Your task to perform on an android device: turn pop-ups on in chrome Image 0: 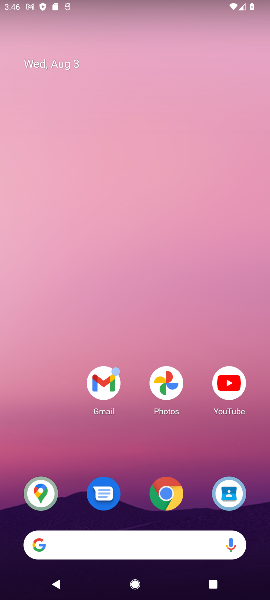
Step 0: drag from (52, 445) to (72, 81)
Your task to perform on an android device: turn pop-ups on in chrome Image 1: 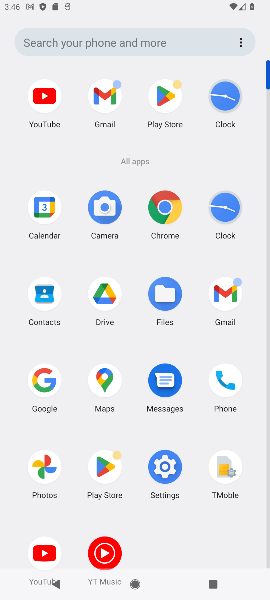
Step 1: click (171, 218)
Your task to perform on an android device: turn pop-ups on in chrome Image 2: 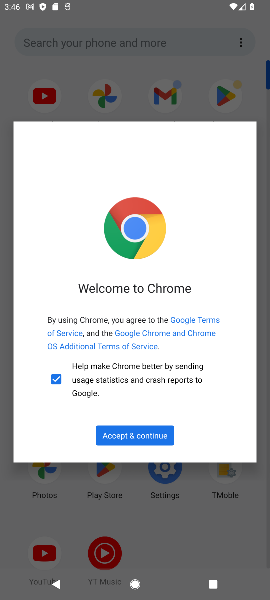
Step 2: click (121, 434)
Your task to perform on an android device: turn pop-ups on in chrome Image 3: 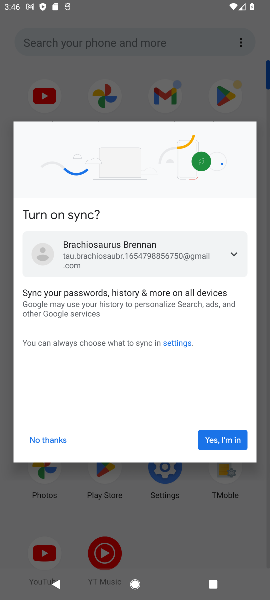
Step 3: click (225, 439)
Your task to perform on an android device: turn pop-ups on in chrome Image 4: 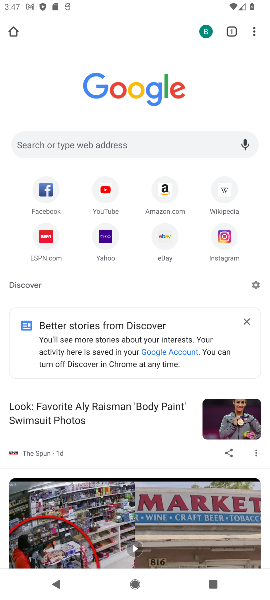
Step 4: click (254, 33)
Your task to perform on an android device: turn pop-ups on in chrome Image 5: 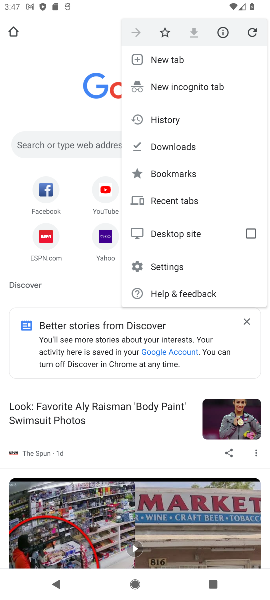
Step 5: click (181, 271)
Your task to perform on an android device: turn pop-ups on in chrome Image 6: 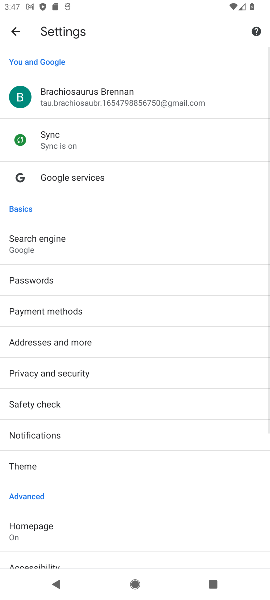
Step 6: drag from (198, 412) to (195, 306)
Your task to perform on an android device: turn pop-ups on in chrome Image 7: 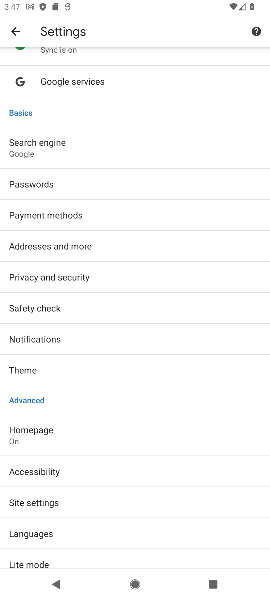
Step 7: drag from (169, 462) to (170, 355)
Your task to perform on an android device: turn pop-ups on in chrome Image 8: 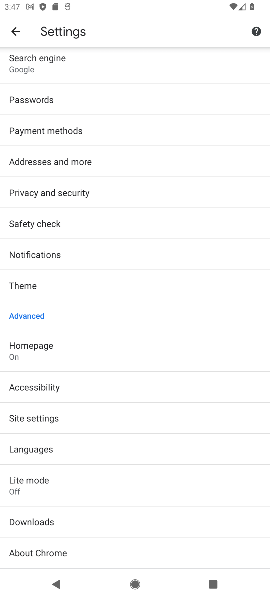
Step 8: drag from (161, 480) to (163, 357)
Your task to perform on an android device: turn pop-ups on in chrome Image 9: 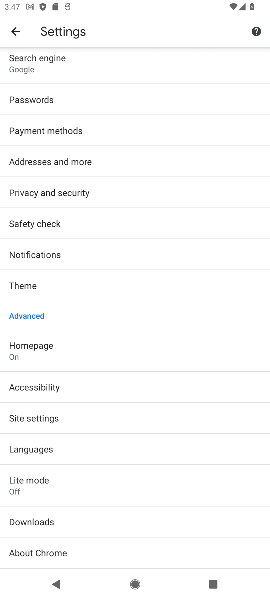
Step 9: click (160, 420)
Your task to perform on an android device: turn pop-ups on in chrome Image 10: 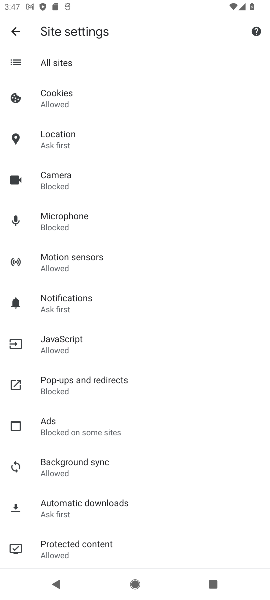
Step 10: drag from (201, 452) to (208, 375)
Your task to perform on an android device: turn pop-ups on in chrome Image 11: 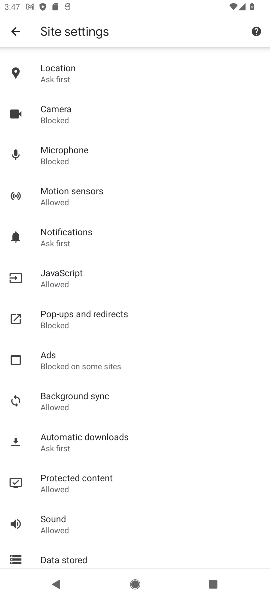
Step 11: drag from (200, 502) to (202, 417)
Your task to perform on an android device: turn pop-ups on in chrome Image 12: 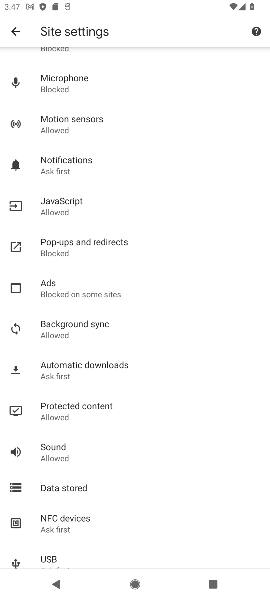
Step 12: drag from (202, 495) to (213, 382)
Your task to perform on an android device: turn pop-ups on in chrome Image 13: 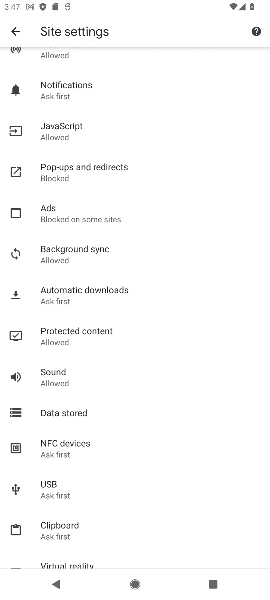
Step 13: drag from (211, 426) to (209, 315)
Your task to perform on an android device: turn pop-ups on in chrome Image 14: 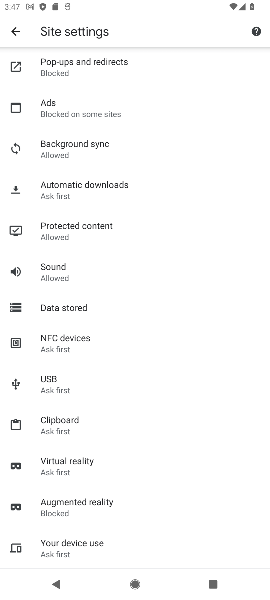
Step 14: drag from (206, 466) to (198, 348)
Your task to perform on an android device: turn pop-ups on in chrome Image 15: 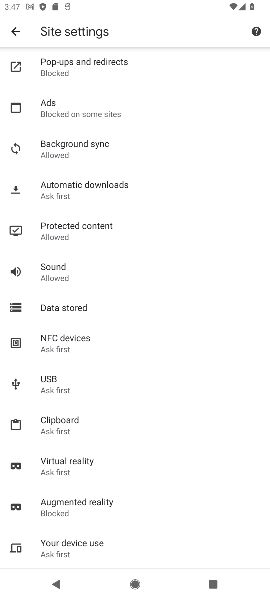
Step 15: drag from (193, 203) to (195, 297)
Your task to perform on an android device: turn pop-ups on in chrome Image 16: 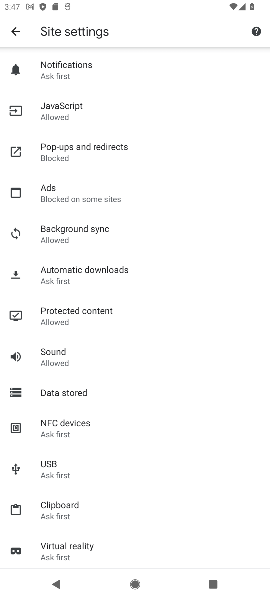
Step 16: drag from (185, 187) to (184, 291)
Your task to perform on an android device: turn pop-ups on in chrome Image 17: 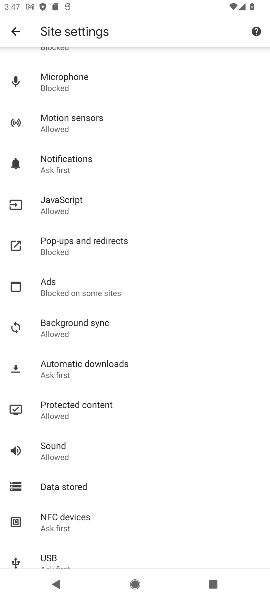
Step 17: click (165, 263)
Your task to perform on an android device: turn pop-ups on in chrome Image 18: 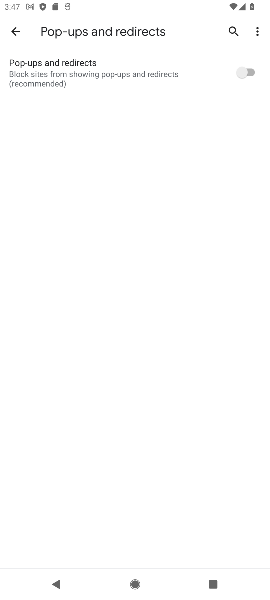
Step 18: click (236, 73)
Your task to perform on an android device: turn pop-ups on in chrome Image 19: 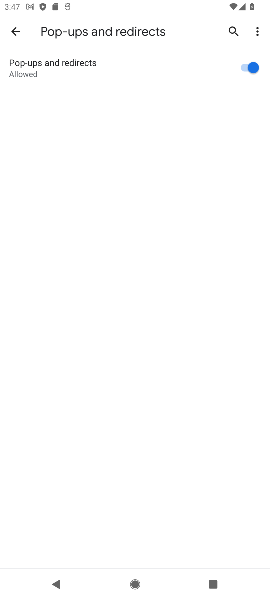
Step 19: task complete